Your task to perform on an android device: Clear all items from cart on amazon.com. Add alienware area 51 to the cart on amazon.com Image 0: 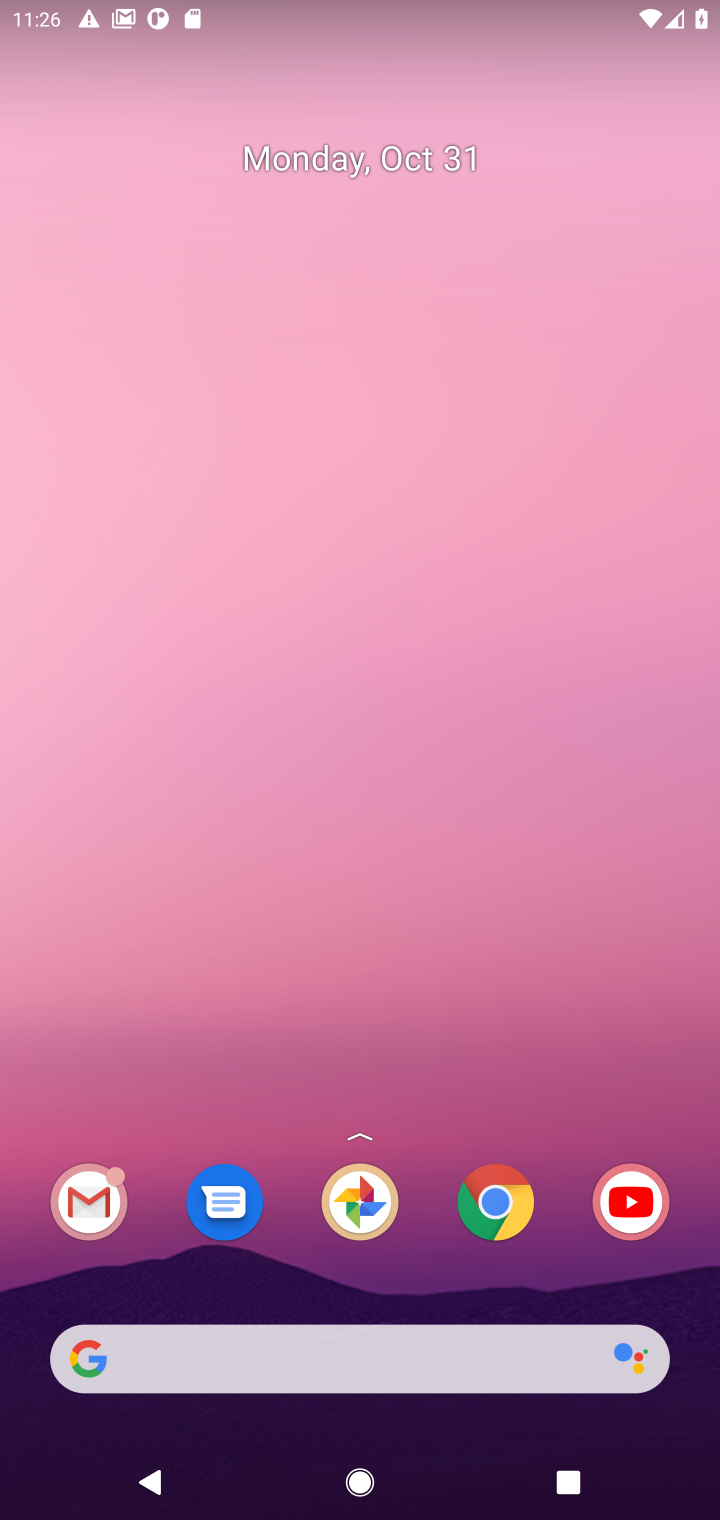
Step 0: click (426, 1345)
Your task to perform on an android device: Clear all items from cart on amazon.com. Add alienware area 51 to the cart on amazon.com Image 1: 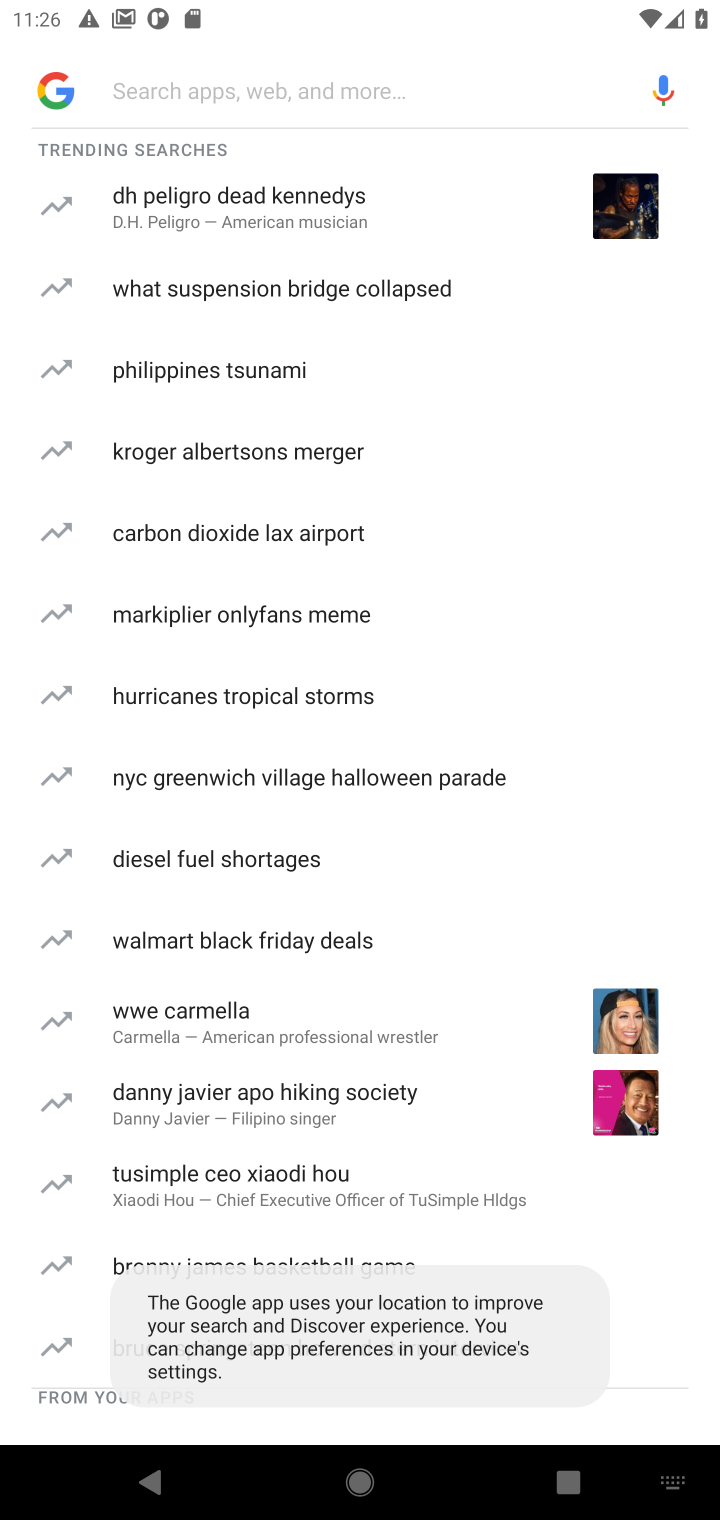
Step 1: type "alienware area 51 to the cart on amazon.com"
Your task to perform on an android device: Clear all items from cart on amazon.com. Add alienware area 51 to the cart on amazon.com Image 2: 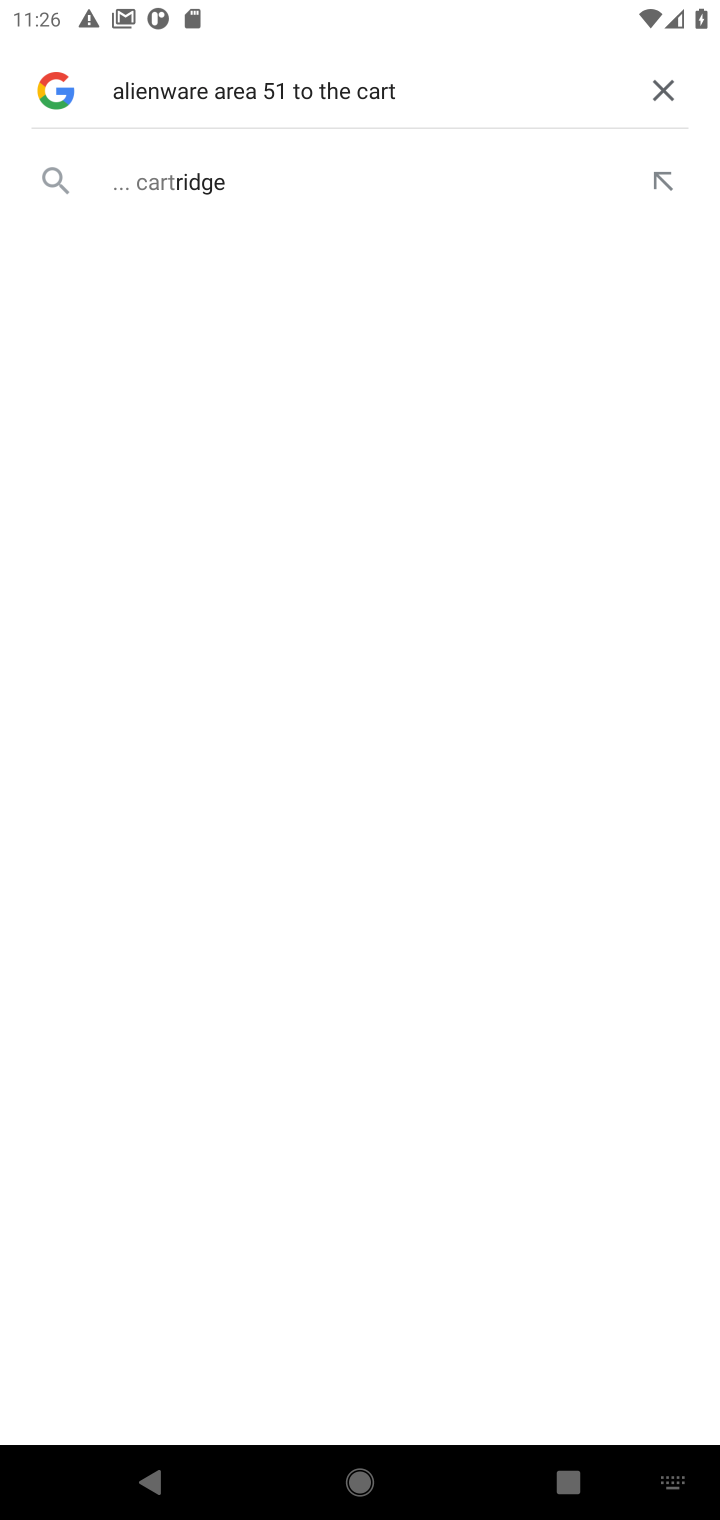
Step 2: type "alienware area 51  on amazon.com"
Your task to perform on an android device: Clear all items from cart on amazon.com. Add alienware area 51 to the cart on amazon.com Image 3: 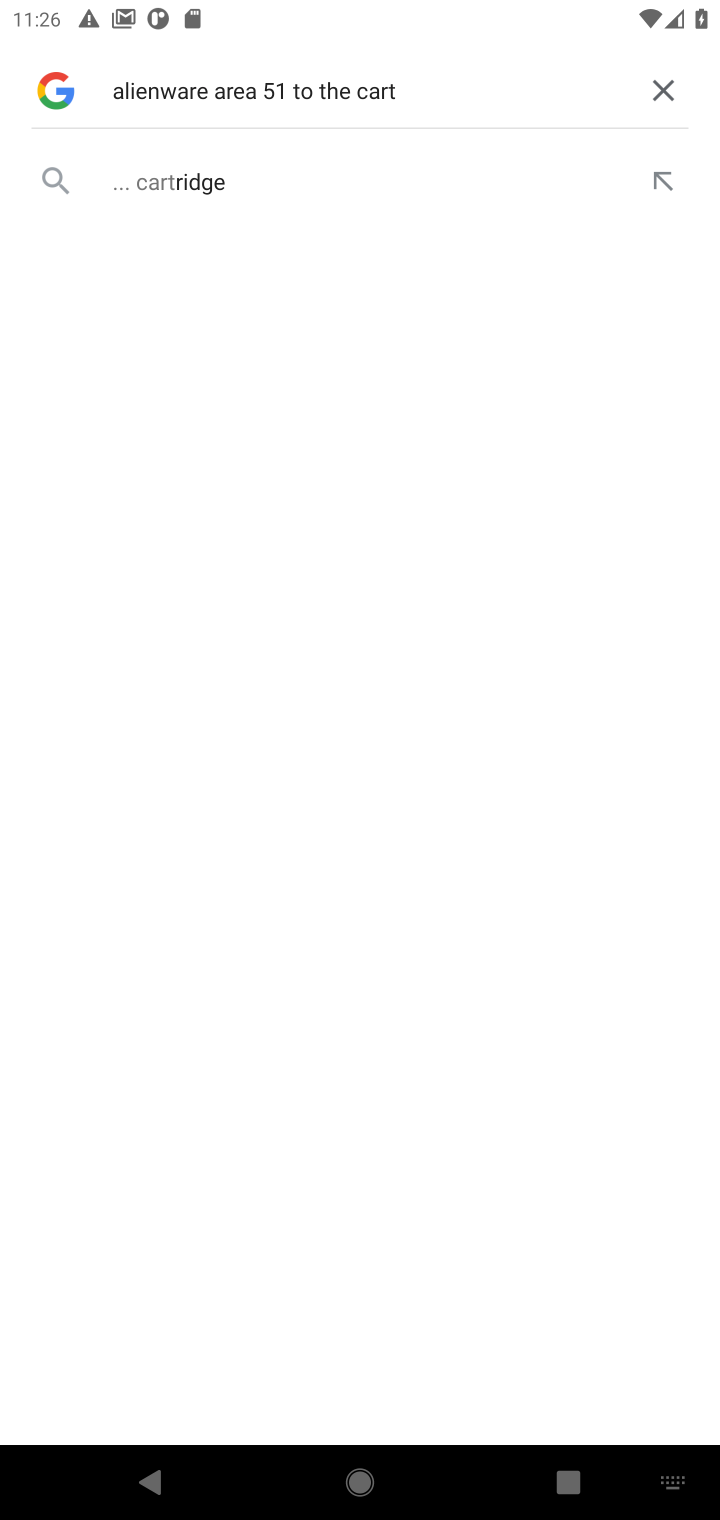
Step 3: click (665, 86)
Your task to perform on an android device: Clear all items from cart on amazon.com. Add alienware area 51 to the cart on amazon.com Image 4: 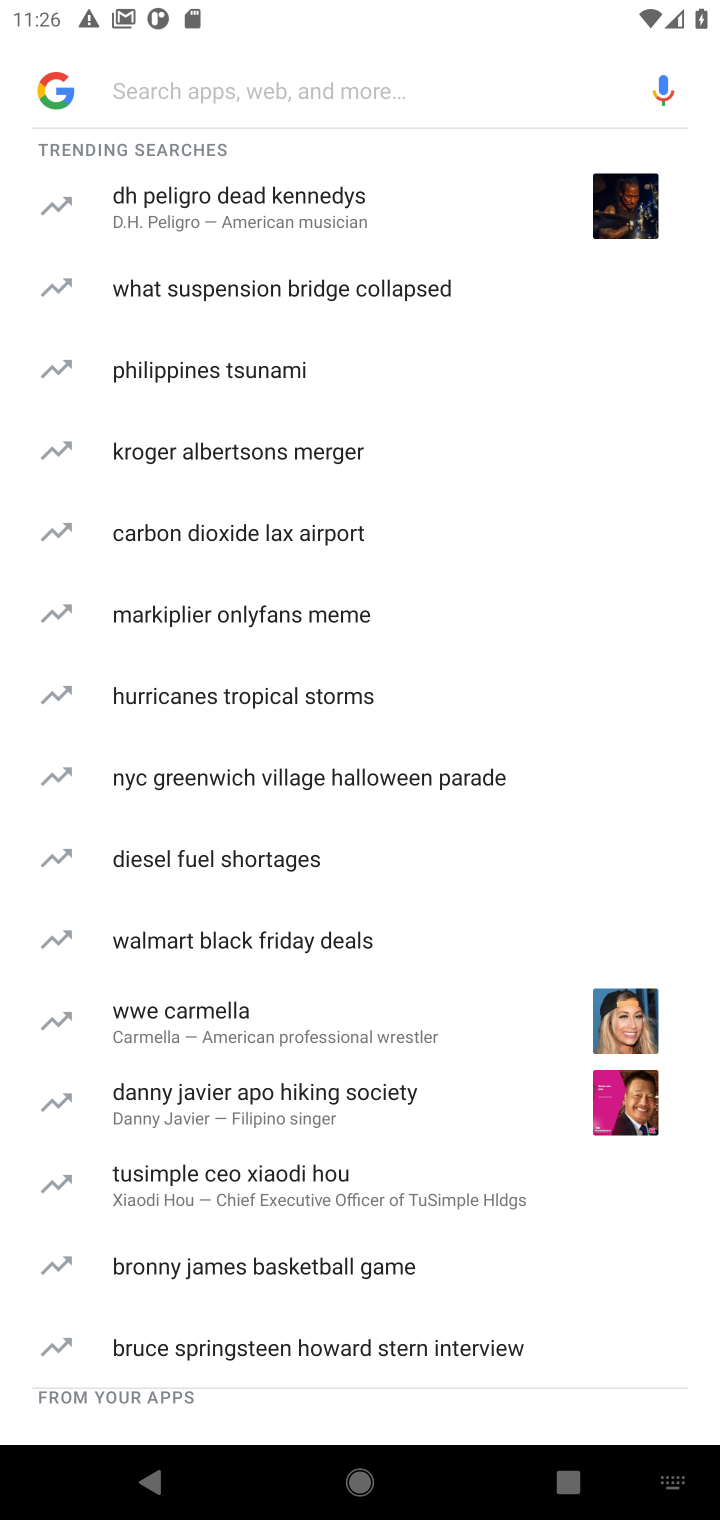
Step 4: type "alienware area 51 on amazon.com"
Your task to perform on an android device: Clear all items from cart on amazon.com. Add alienware area 51 to the cart on amazon.com Image 5: 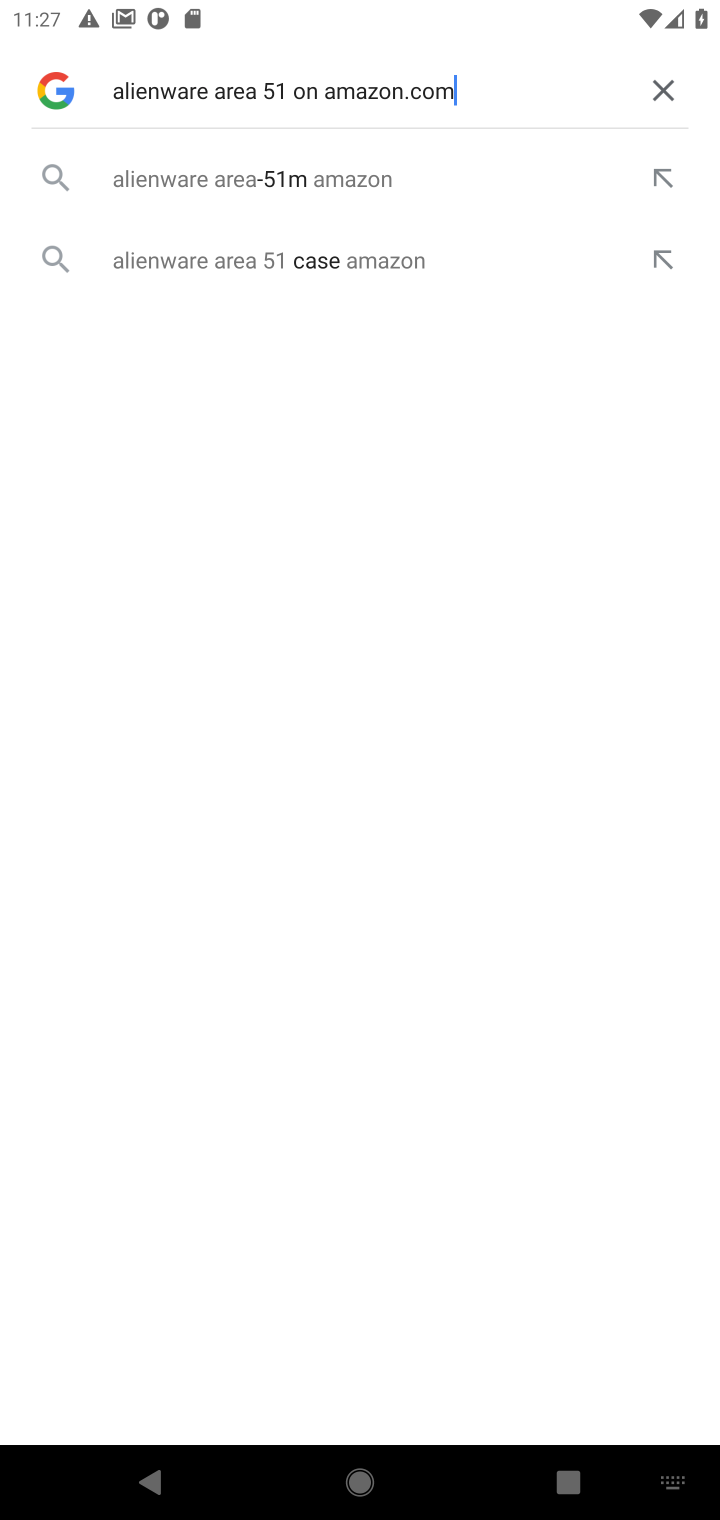
Step 5: click (348, 170)
Your task to perform on an android device: Clear all items from cart on amazon.com. Add alienware area 51 to the cart on amazon.com Image 6: 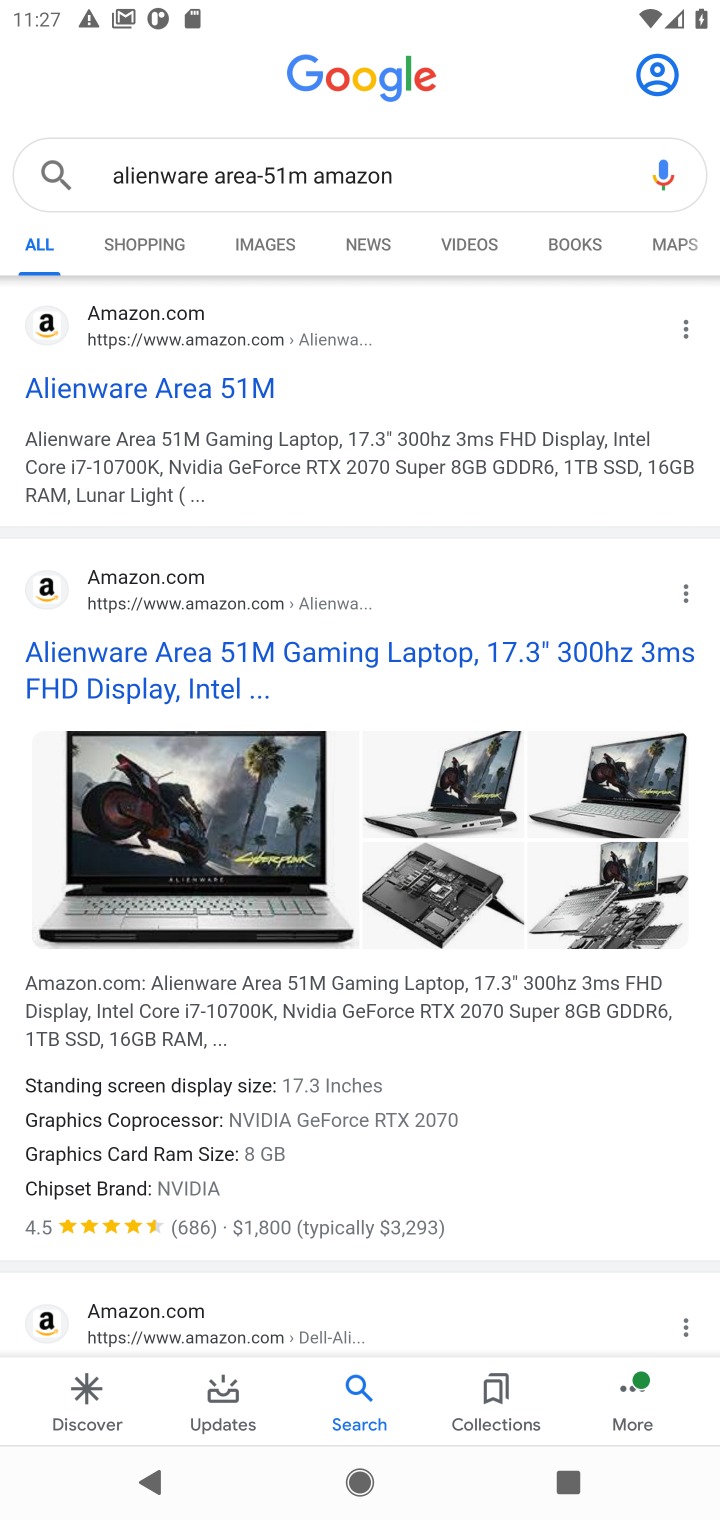
Step 6: click (120, 400)
Your task to perform on an android device: Clear all items from cart on amazon.com. Add alienware area 51 to the cart on amazon.com Image 7: 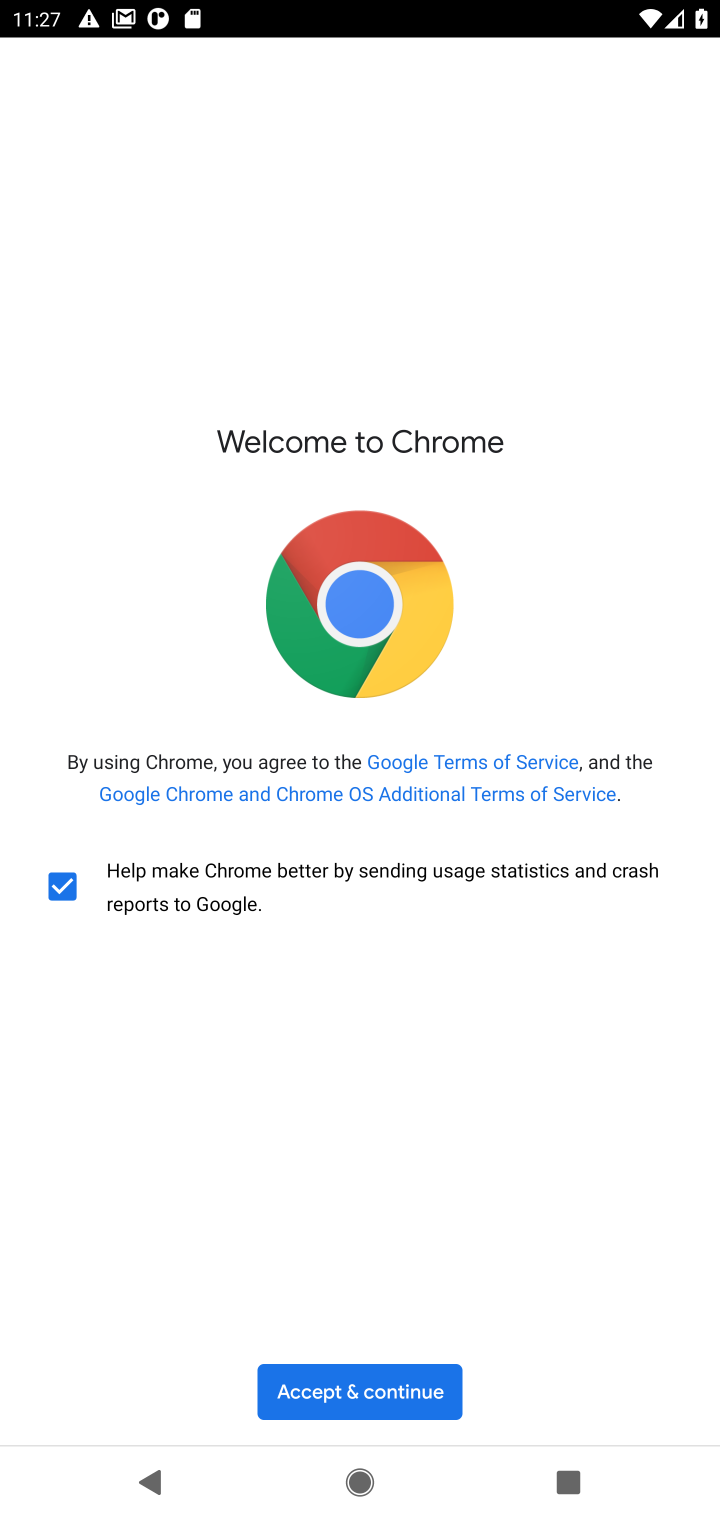
Step 7: click (398, 1378)
Your task to perform on an android device: Clear all items from cart on amazon.com. Add alienware area 51 to the cart on amazon.com Image 8: 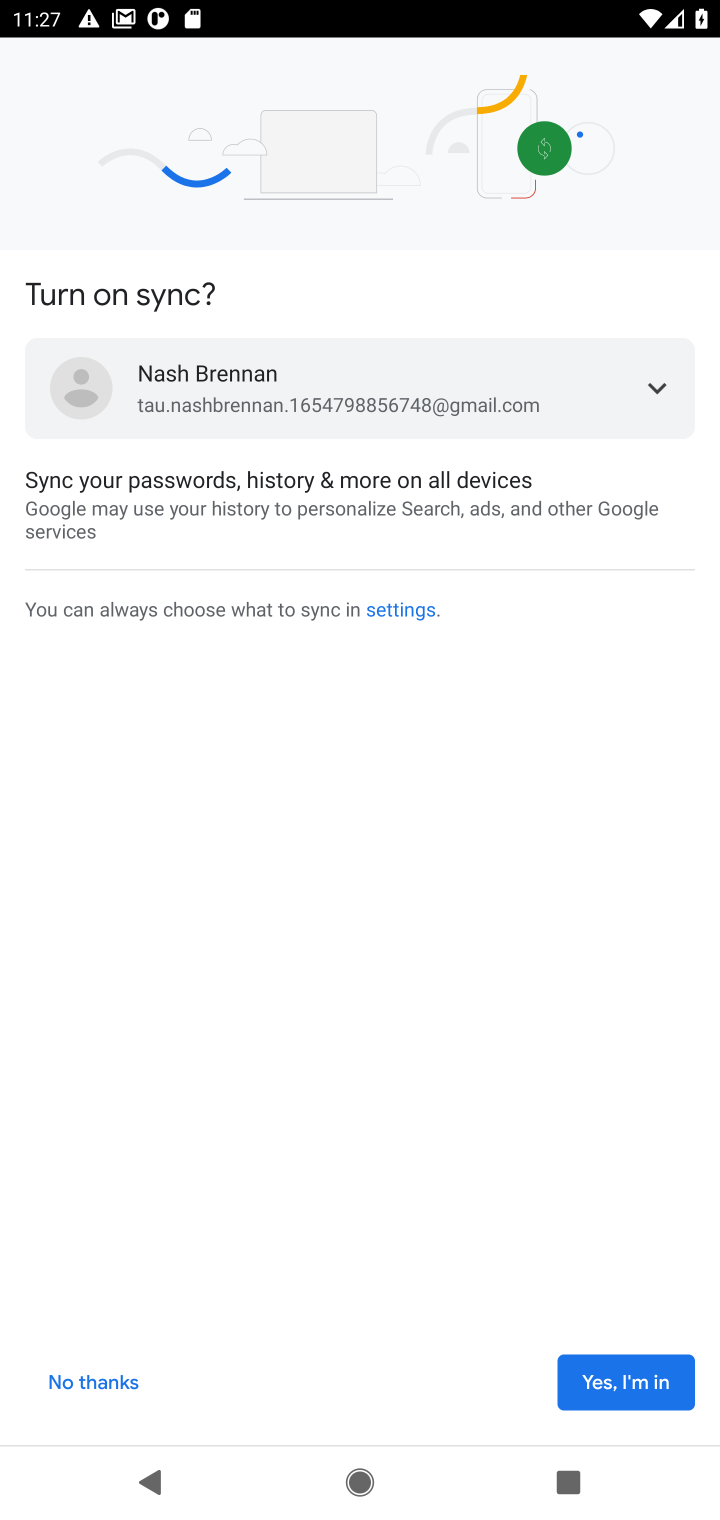
Step 8: click (634, 1377)
Your task to perform on an android device: Clear all items from cart on amazon.com. Add alienware area 51 to the cart on amazon.com Image 9: 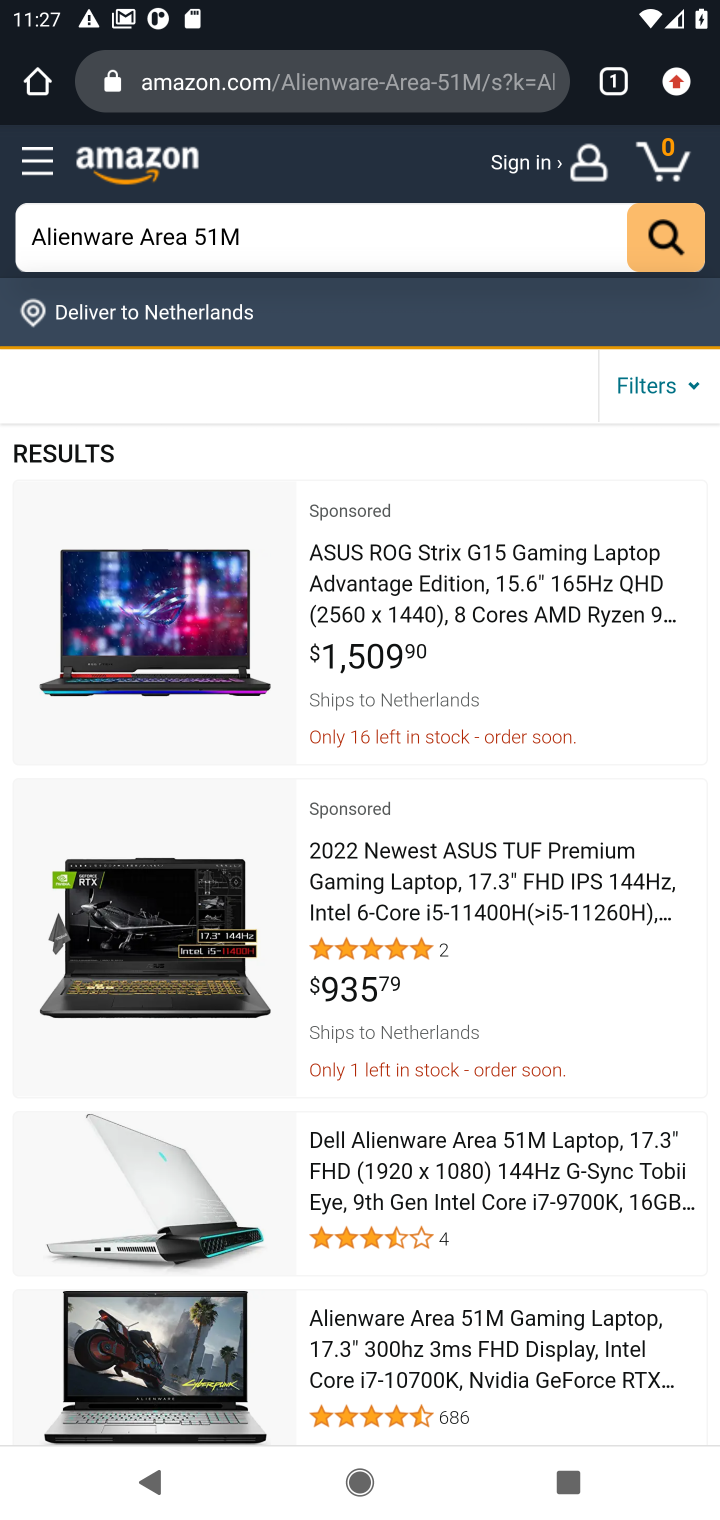
Step 9: click (420, 1157)
Your task to perform on an android device: Clear all items from cart on amazon.com. Add alienware area 51 to the cart on amazon.com Image 10: 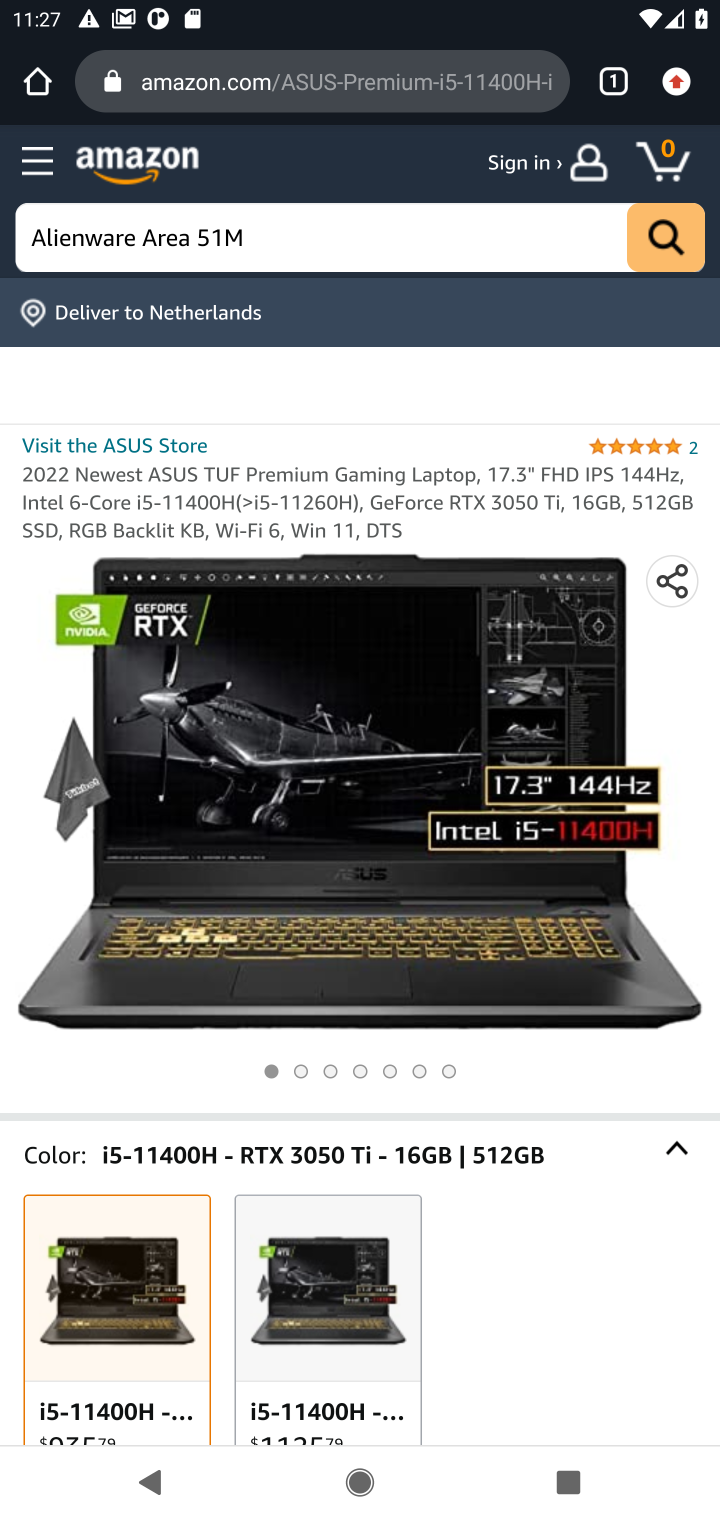
Step 10: drag from (477, 1315) to (624, 190)
Your task to perform on an android device: Clear all items from cart on amazon.com. Add alienware area 51 to the cart on amazon.com Image 11: 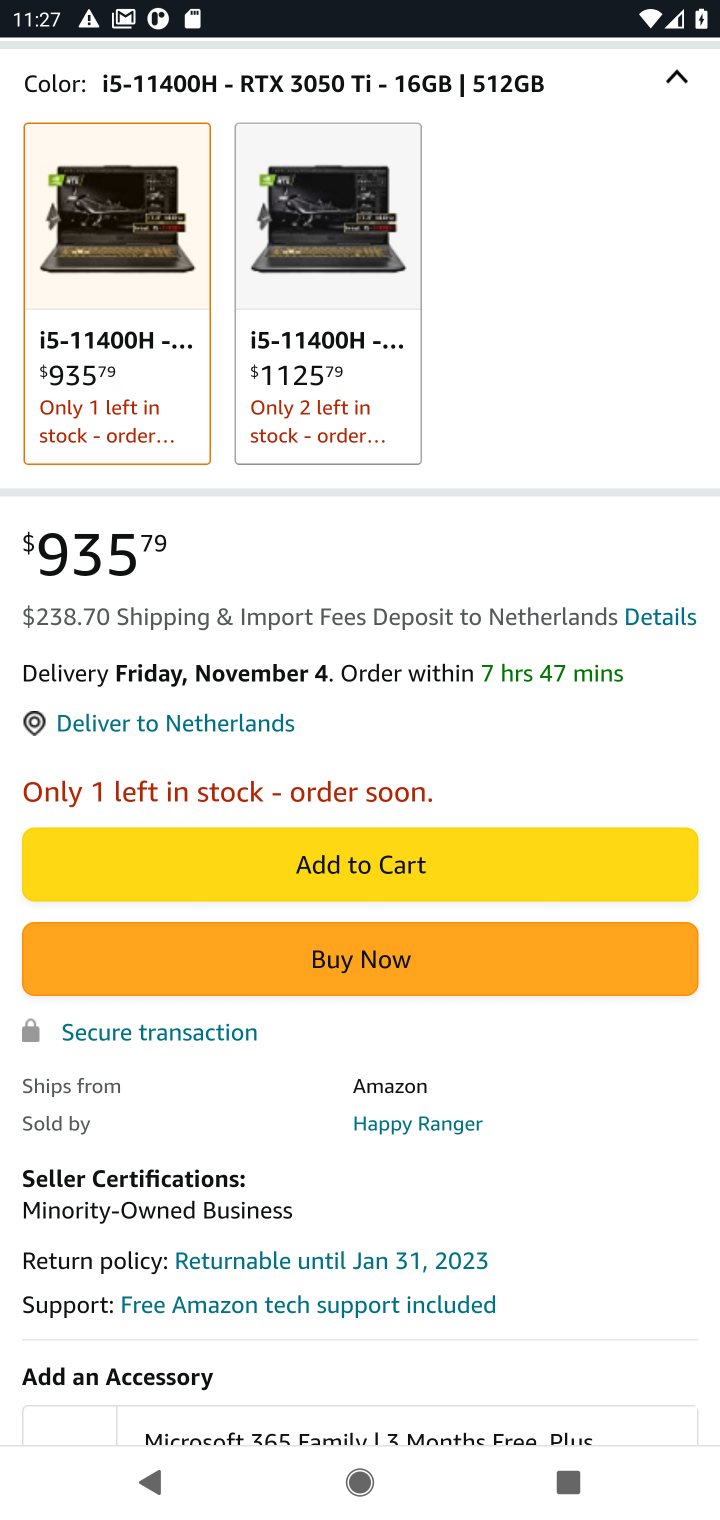
Step 11: click (410, 858)
Your task to perform on an android device: Clear all items from cart on amazon.com. Add alienware area 51 to the cart on amazon.com Image 12: 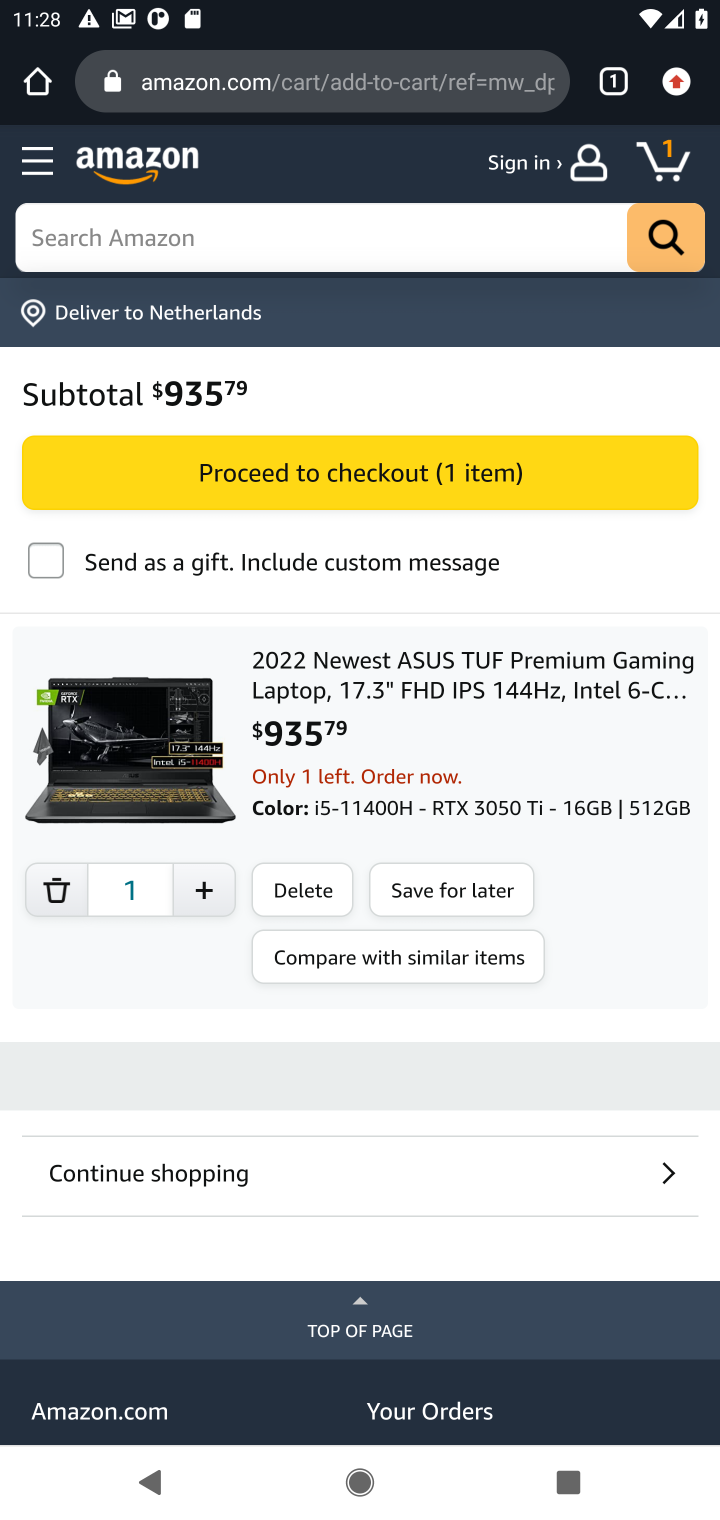
Step 12: task complete